Your task to perform on an android device: Open Google Maps and go to "Timeline" Image 0: 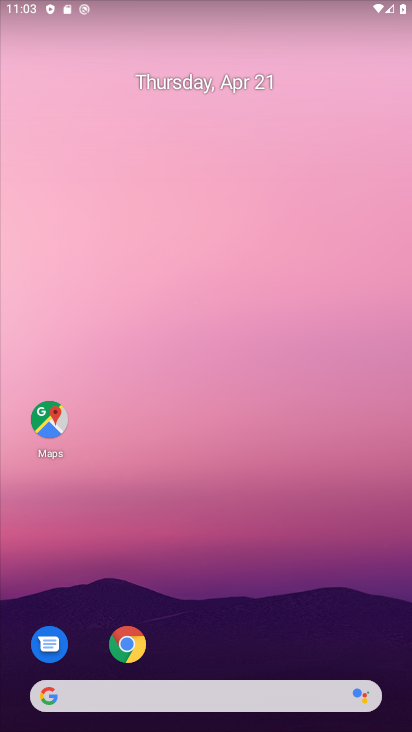
Step 0: press home button
Your task to perform on an android device: Open Google Maps and go to "Timeline" Image 1: 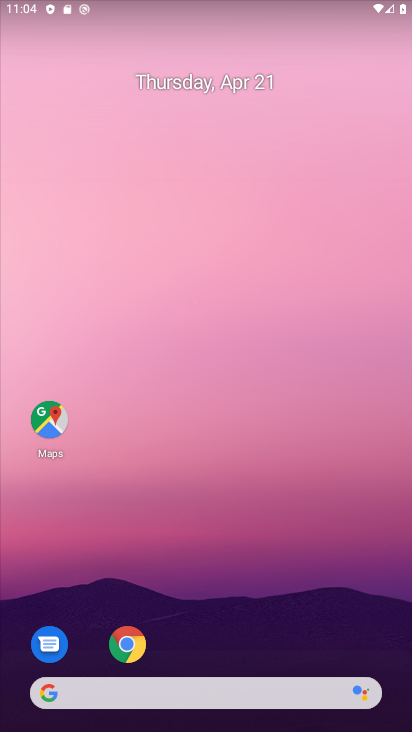
Step 1: drag from (214, 638) to (204, 63)
Your task to perform on an android device: Open Google Maps and go to "Timeline" Image 2: 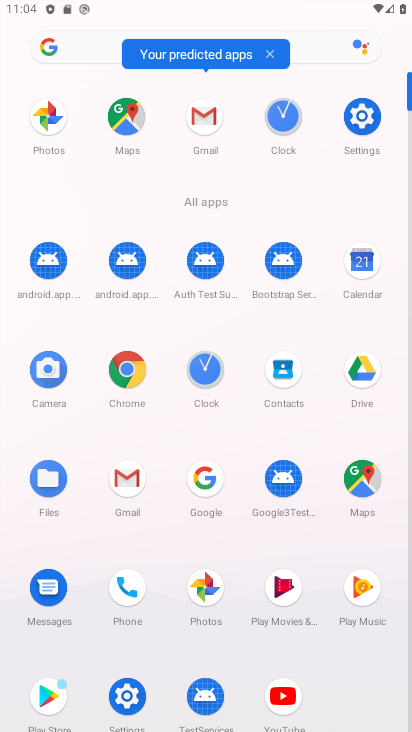
Step 2: click (359, 481)
Your task to perform on an android device: Open Google Maps and go to "Timeline" Image 3: 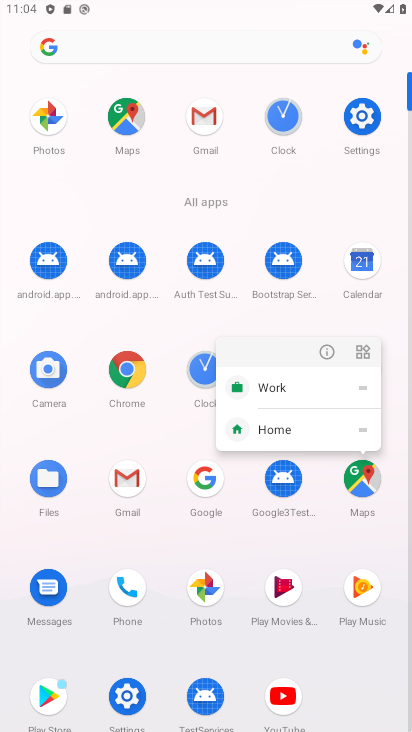
Step 3: click (359, 481)
Your task to perform on an android device: Open Google Maps and go to "Timeline" Image 4: 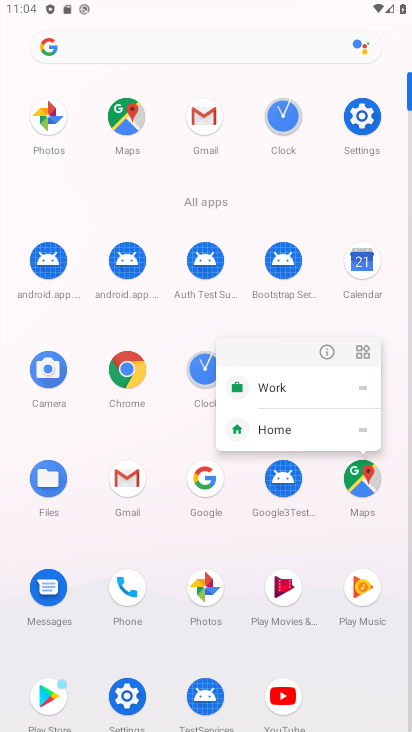
Step 4: click (357, 481)
Your task to perform on an android device: Open Google Maps and go to "Timeline" Image 5: 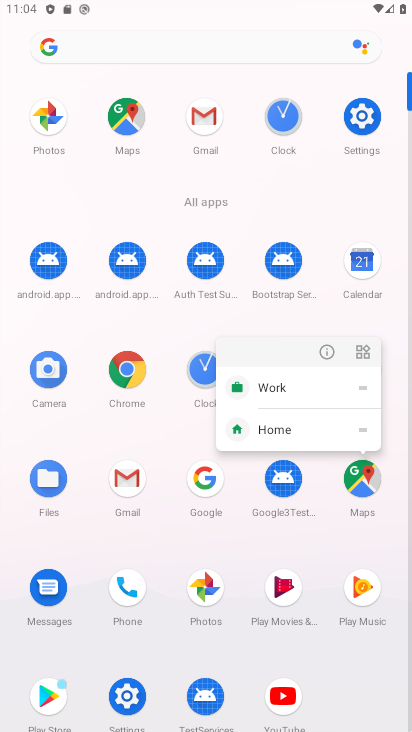
Step 5: click (359, 484)
Your task to perform on an android device: Open Google Maps and go to "Timeline" Image 6: 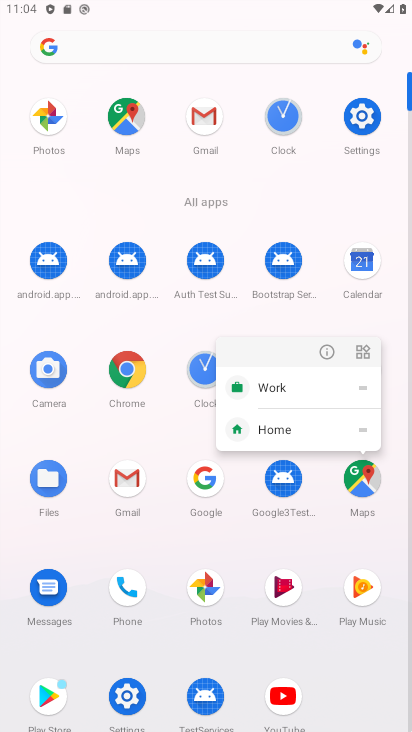
Step 6: click (363, 479)
Your task to perform on an android device: Open Google Maps and go to "Timeline" Image 7: 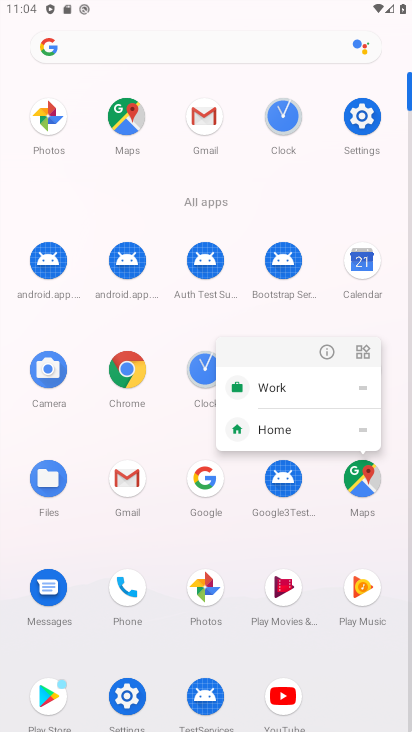
Step 7: click (363, 479)
Your task to perform on an android device: Open Google Maps and go to "Timeline" Image 8: 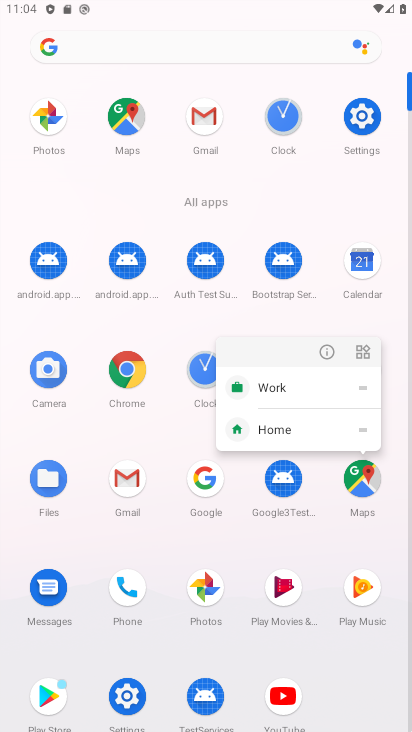
Step 8: click (370, 481)
Your task to perform on an android device: Open Google Maps and go to "Timeline" Image 9: 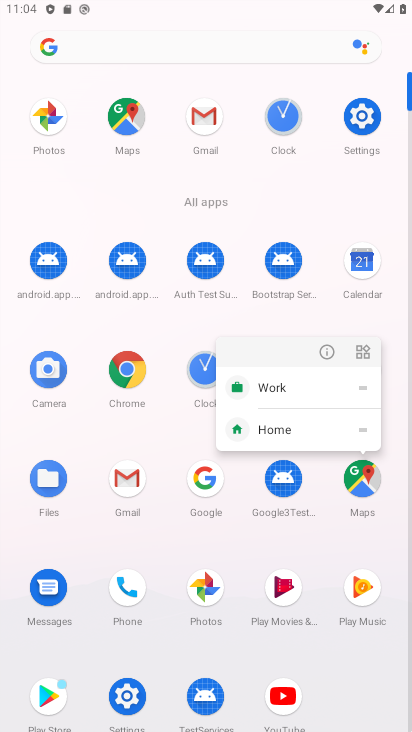
Step 9: click (370, 481)
Your task to perform on an android device: Open Google Maps and go to "Timeline" Image 10: 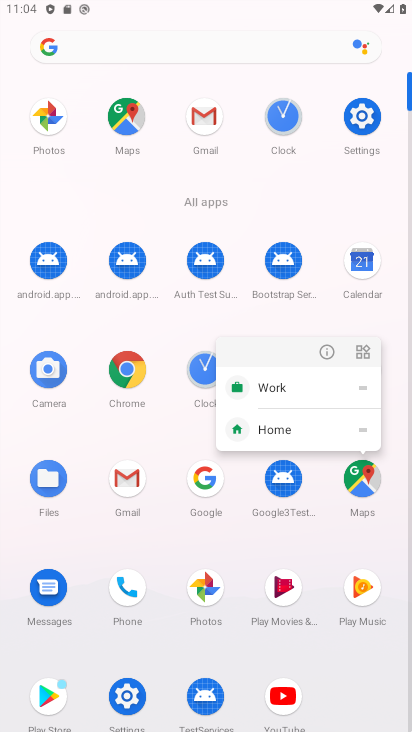
Step 10: click (371, 524)
Your task to perform on an android device: Open Google Maps and go to "Timeline" Image 11: 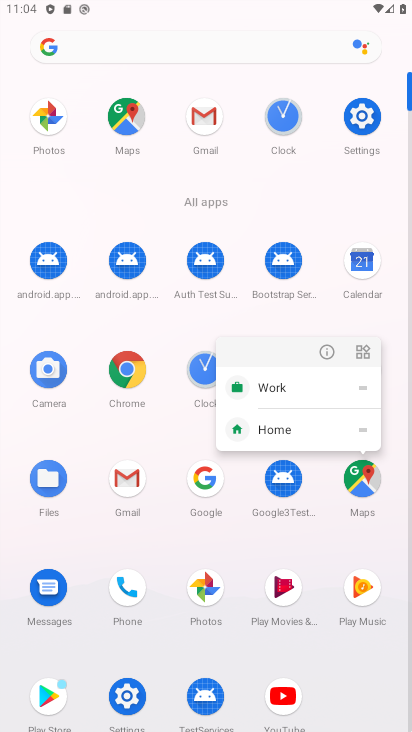
Step 11: click (314, 529)
Your task to perform on an android device: Open Google Maps and go to "Timeline" Image 12: 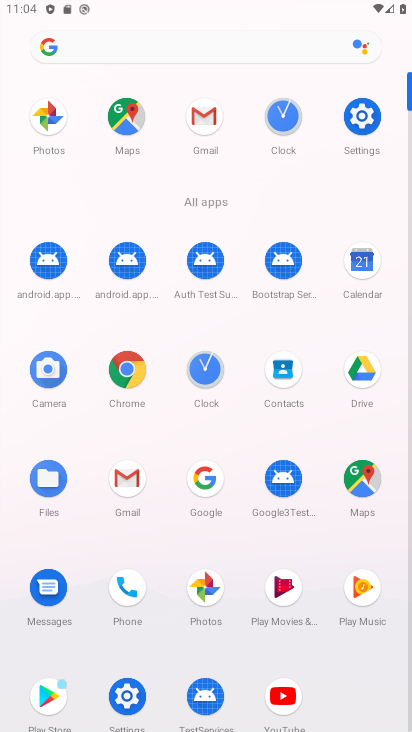
Step 12: click (361, 480)
Your task to perform on an android device: Open Google Maps and go to "Timeline" Image 13: 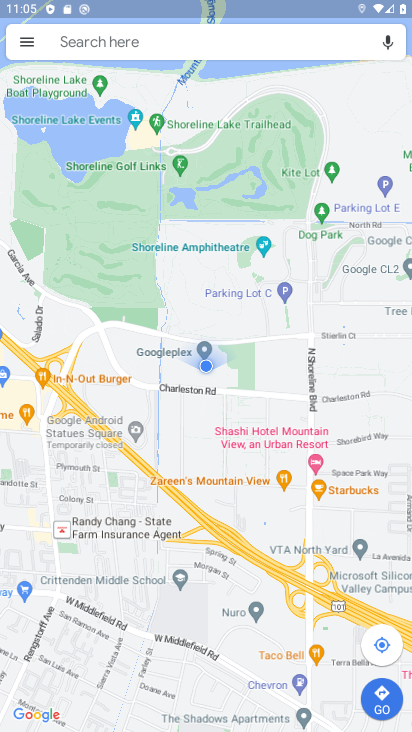
Step 13: click (34, 40)
Your task to perform on an android device: Open Google Maps and go to "Timeline" Image 14: 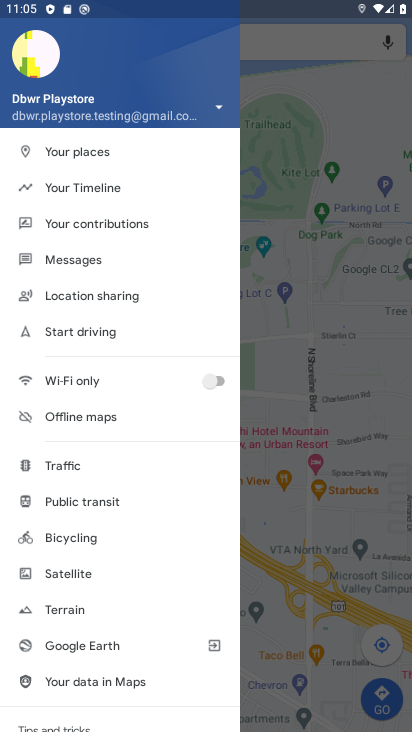
Step 14: click (93, 189)
Your task to perform on an android device: Open Google Maps and go to "Timeline" Image 15: 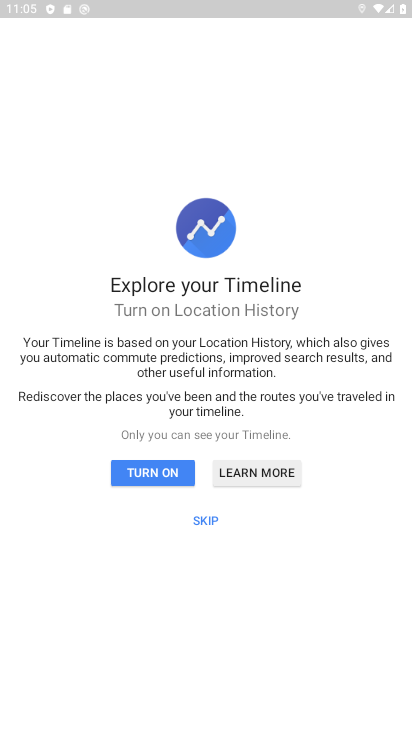
Step 15: click (164, 476)
Your task to perform on an android device: Open Google Maps and go to "Timeline" Image 16: 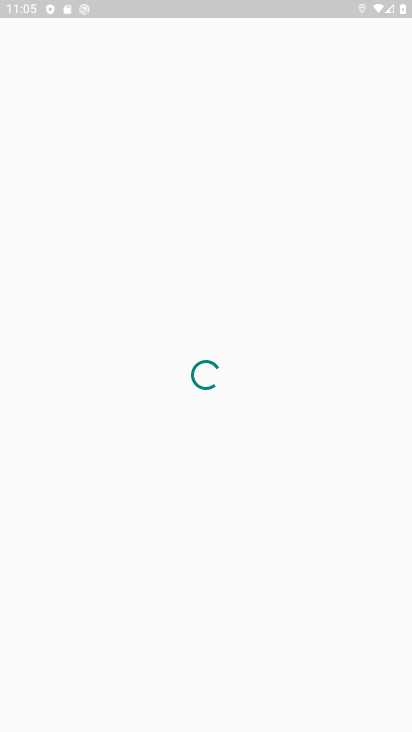
Step 16: task complete